Your task to perform on an android device: allow notifications from all sites in the chrome app Image 0: 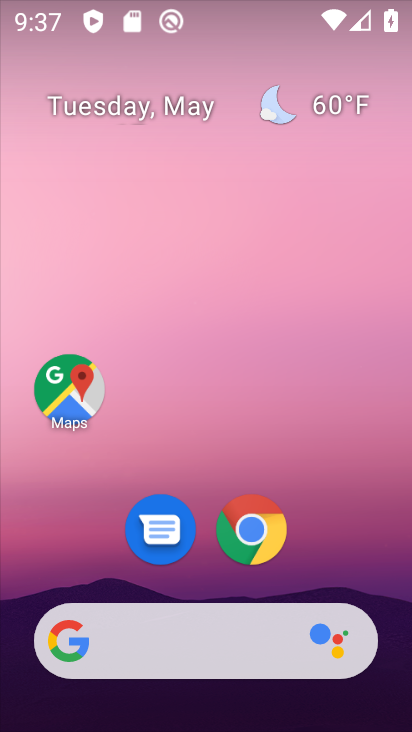
Step 0: click (236, 551)
Your task to perform on an android device: allow notifications from all sites in the chrome app Image 1: 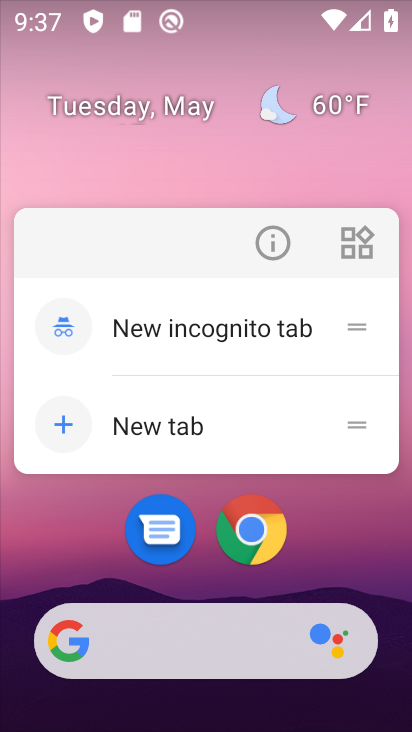
Step 1: click (254, 534)
Your task to perform on an android device: allow notifications from all sites in the chrome app Image 2: 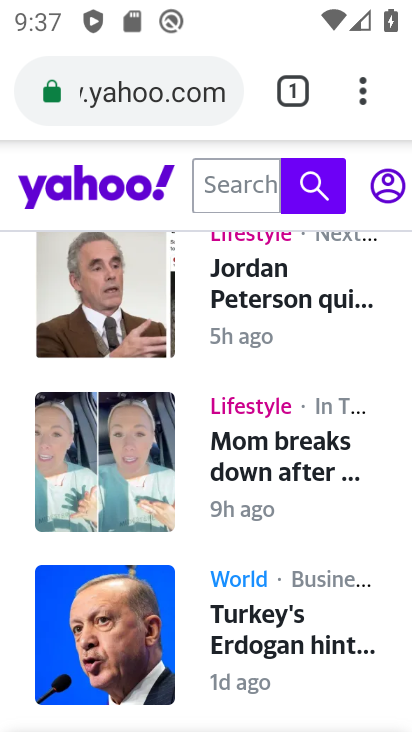
Step 2: click (365, 83)
Your task to perform on an android device: allow notifications from all sites in the chrome app Image 3: 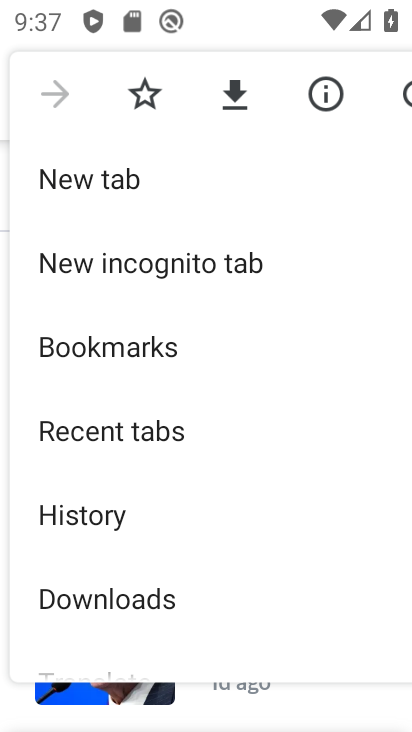
Step 3: drag from (141, 591) to (130, 275)
Your task to perform on an android device: allow notifications from all sites in the chrome app Image 4: 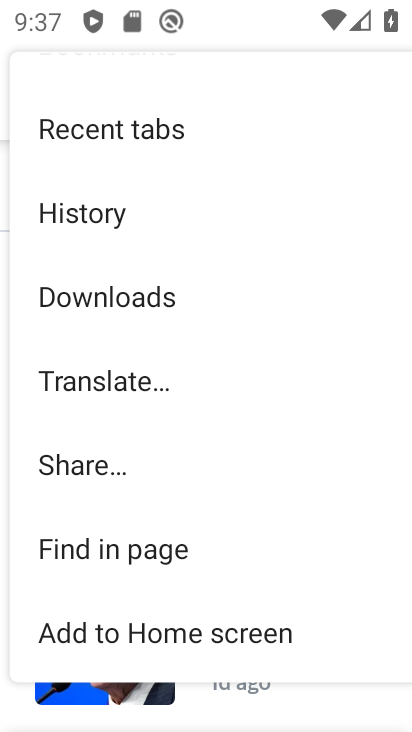
Step 4: drag from (103, 602) to (105, 283)
Your task to perform on an android device: allow notifications from all sites in the chrome app Image 5: 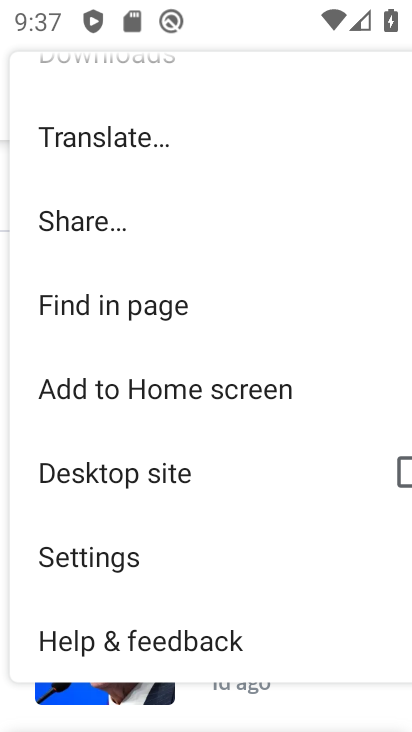
Step 5: drag from (112, 630) to (110, 358)
Your task to perform on an android device: allow notifications from all sites in the chrome app Image 6: 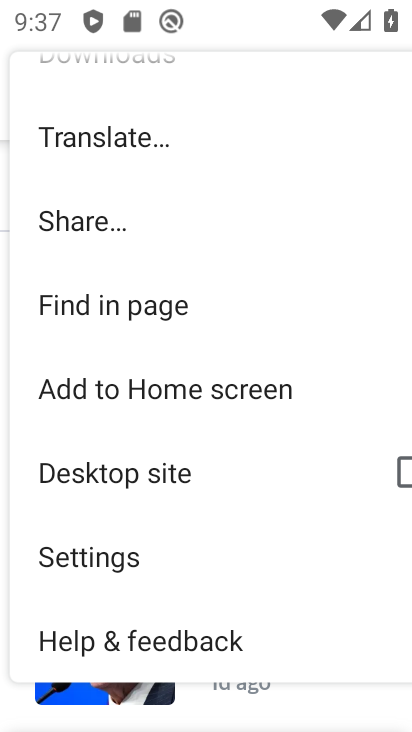
Step 6: click (93, 564)
Your task to perform on an android device: allow notifications from all sites in the chrome app Image 7: 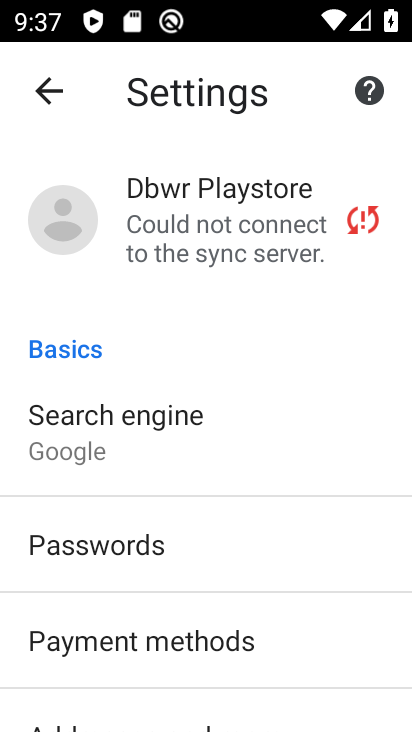
Step 7: drag from (118, 648) to (131, 374)
Your task to perform on an android device: allow notifications from all sites in the chrome app Image 8: 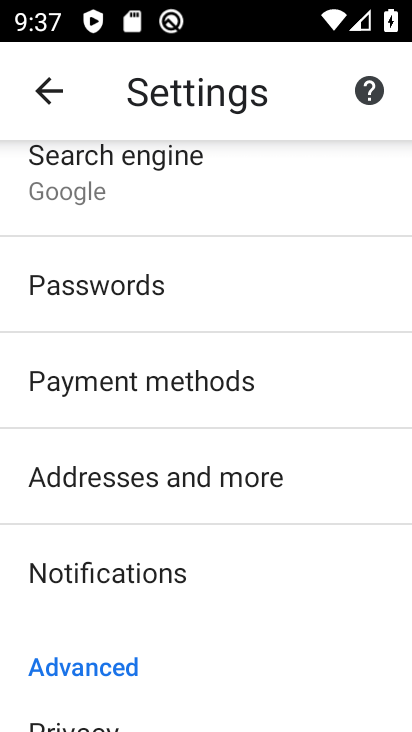
Step 8: drag from (106, 633) to (105, 430)
Your task to perform on an android device: allow notifications from all sites in the chrome app Image 9: 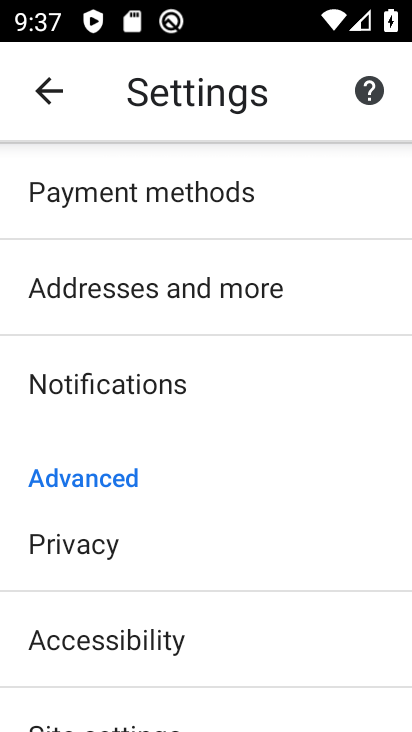
Step 9: drag from (127, 660) to (121, 479)
Your task to perform on an android device: allow notifications from all sites in the chrome app Image 10: 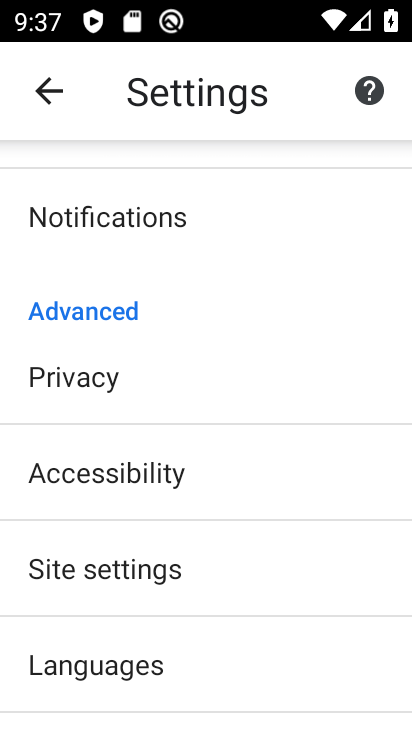
Step 10: click (109, 562)
Your task to perform on an android device: allow notifications from all sites in the chrome app Image 11: 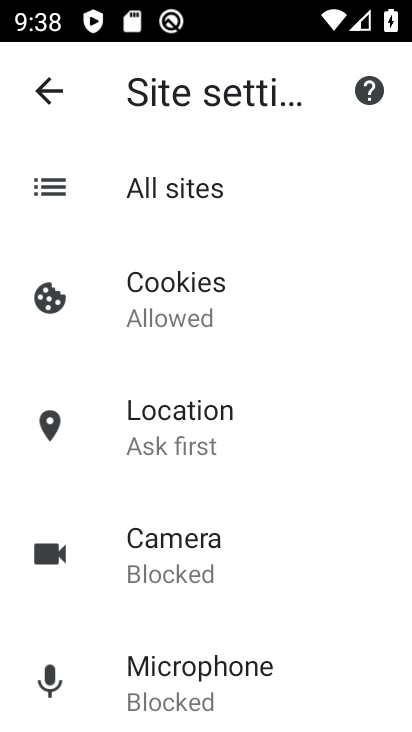
Step 11: drag from (221, 696) to (252, 298)
Your task to perform on an android device: allow notifications from all sites in the chrome app Image 12: 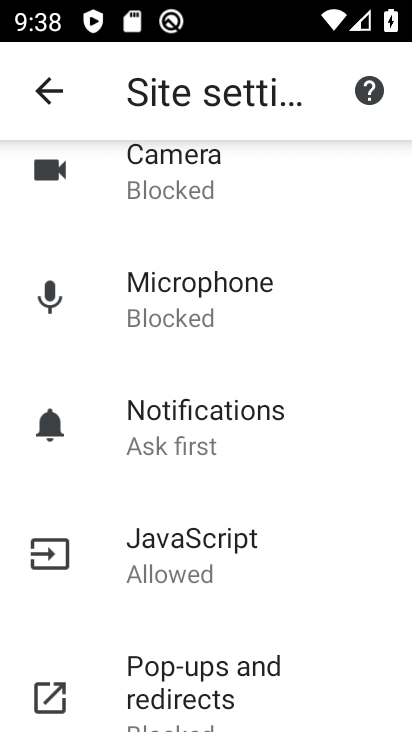
Step 12: click (162, 432)
Your task to perform on an android device: allow notifications from all sites in the chrome app Image 13: 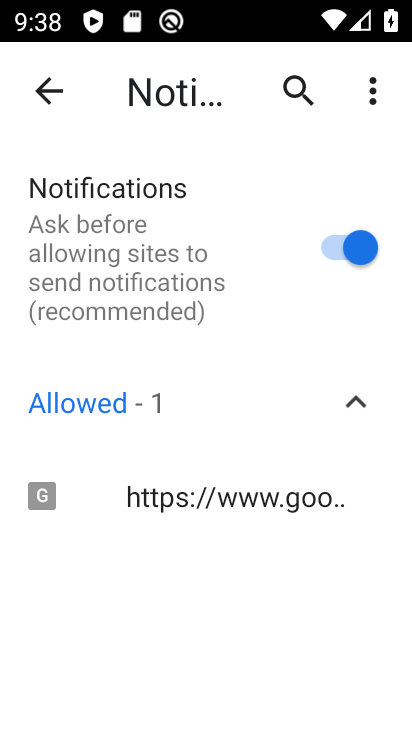
Step 13: task complete